Your task to perform on an android device: turn off notifications settings in the gmail app Image 0: 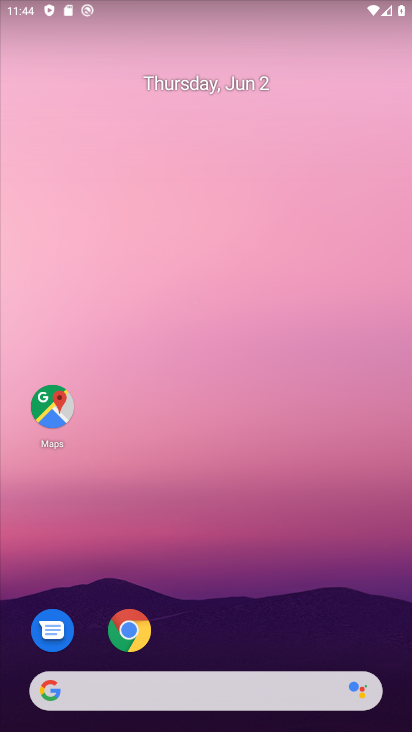
Step 0: drag from (258, 689) to (355, 110)
Your task to perform on an android device: turn off notifications settings in the gmail app Image 1: 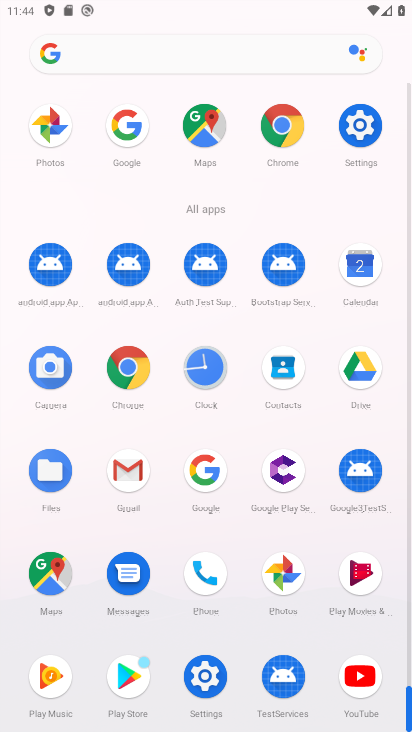
Step 1: click (123, 468)
Your task to perform on an android device: turn off notifications settings in the gmail app Image 2: 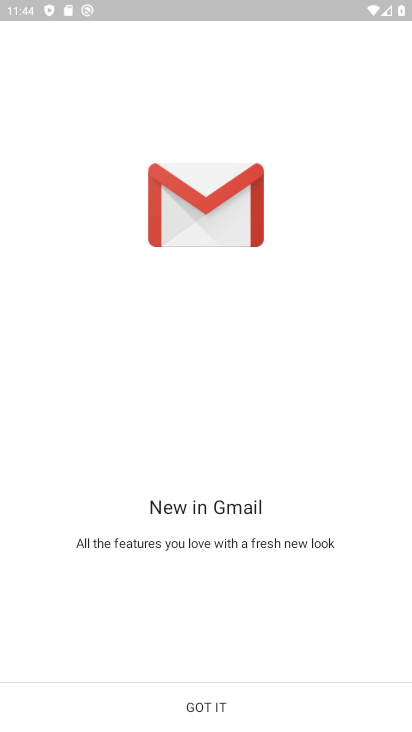
Step 2: click (199, 695)
Your task to perform on an android device: turn off notifications settings in the gmail app Image 3: 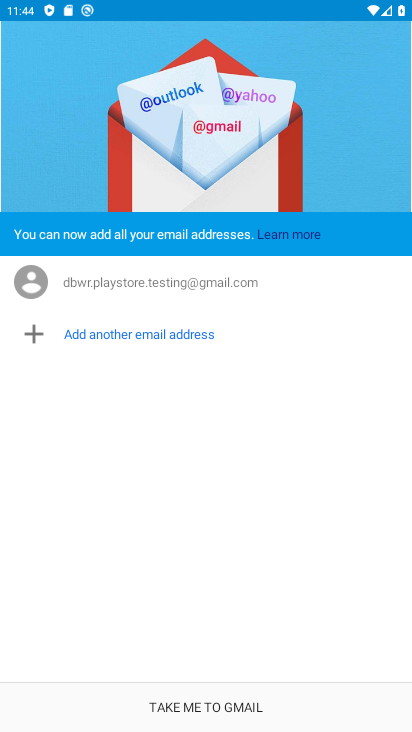
Step 3: click (174, 712)
Your task to perform on an android device: turn off notifications settings in the gmail app Image 4: 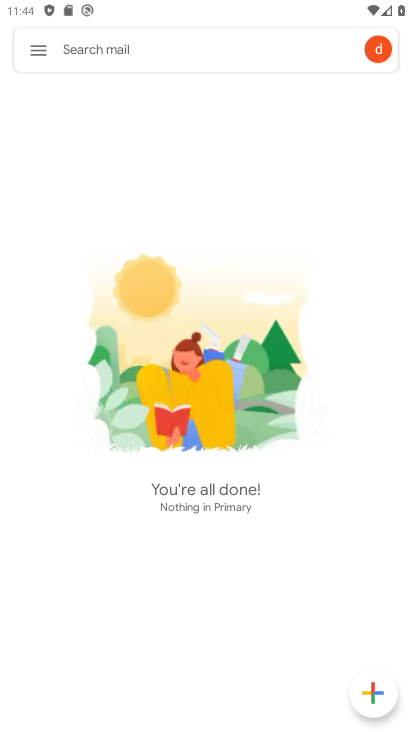
Step 4: click (44, 40)
Your task to perform on an android device: turn off notifications settings in the gmail app Image 5: 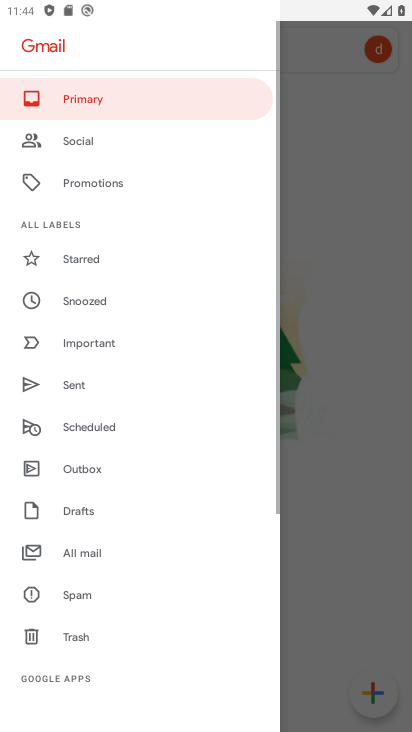
Step 5: drag from (75, 503) to (196, 187)
Your task to perform on an android device: turn off notifications settings in the gmail app Image 6: 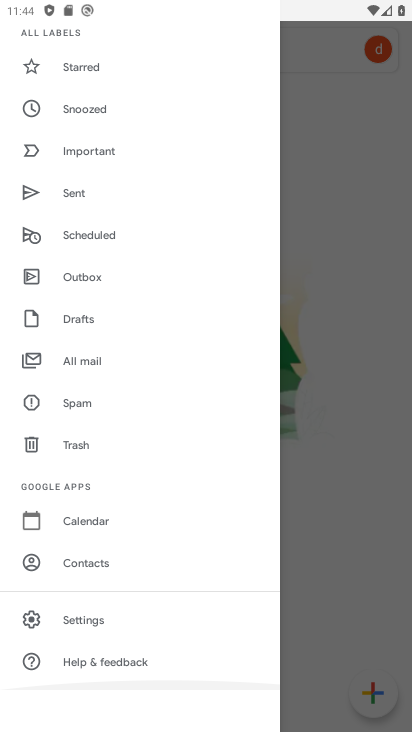
Step 6: click (107, 615)
Your task to perform on an android device: turn off notifications settings in the gmail app Image 7: 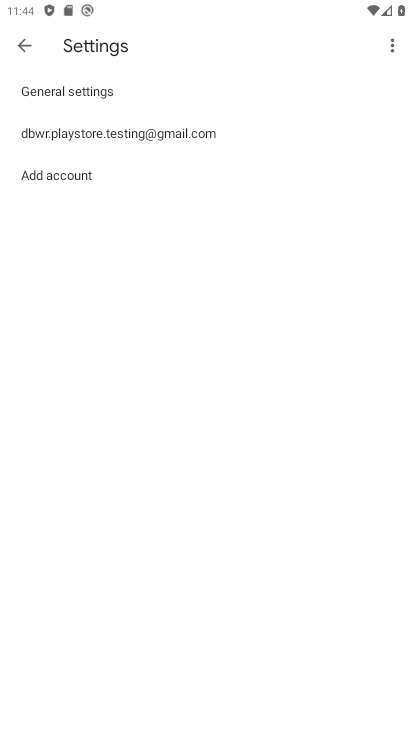
Step 7: click (191, 131)
Your task to perform on an android device: turn off notifications settings in the gmail app Image 8: 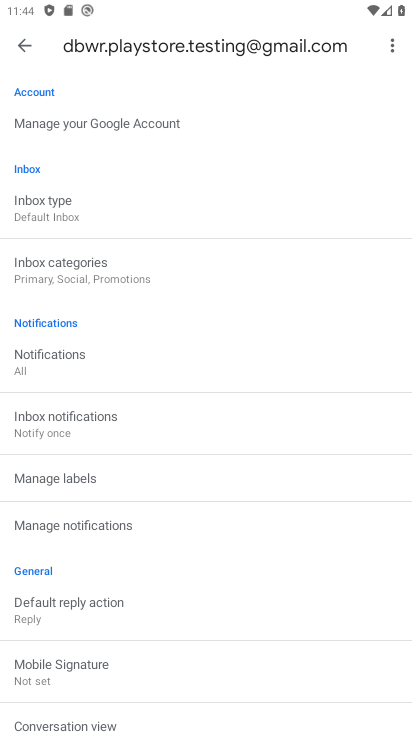
Step 8: click (157, 524)
Your task to perform on an android device: turn off notifications settings in the gmail app Image 9: 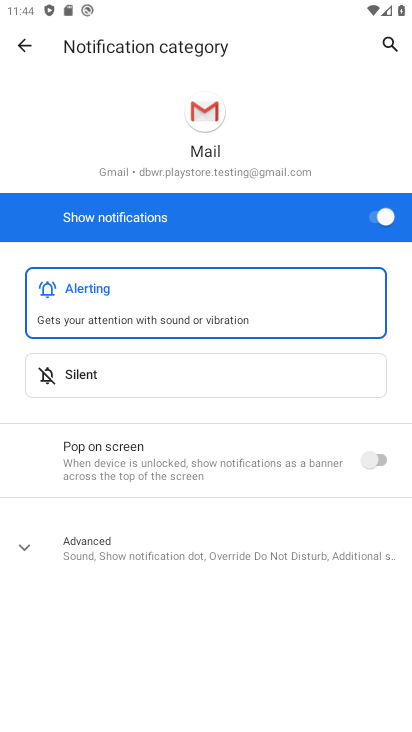
Step 9: click (367, 215)
Your task to perform on an android device: turn off notifications settings in the gmail app Image 10: 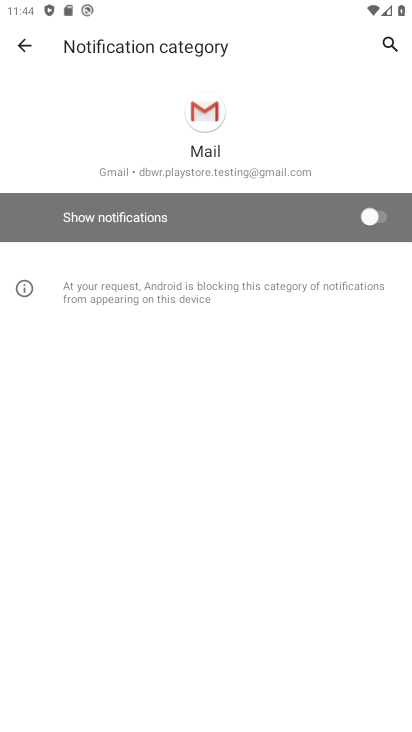
Step 10: task complete